Your task to perform on an android device: delete a single message in the gmail app Image 0: 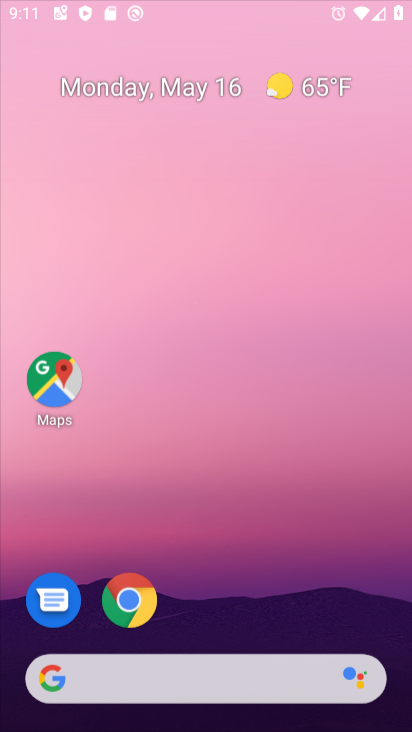
Step 0: click (296, 166)
Your task to perform on an android device: delete a single message in the gmail app Image 1: 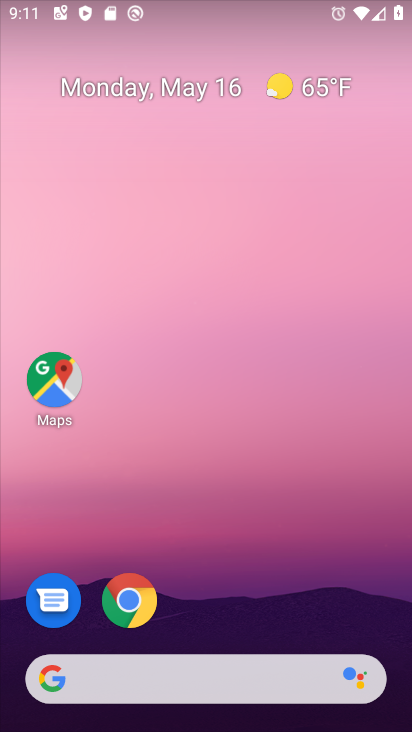
Step 1: drag from (201, 617) to (231, 49)
Your task to perform on an android device: delete a single message in the gmail app Image 2: 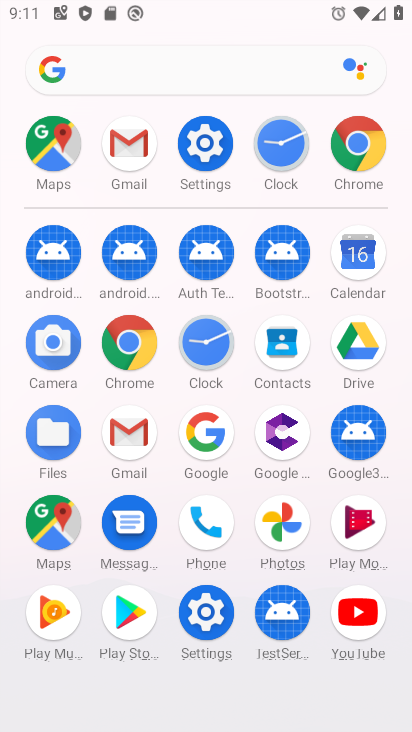
Step 2: click (126, 434)
Your task to perform on an android device: delete a single message in the gmail app Image 3: 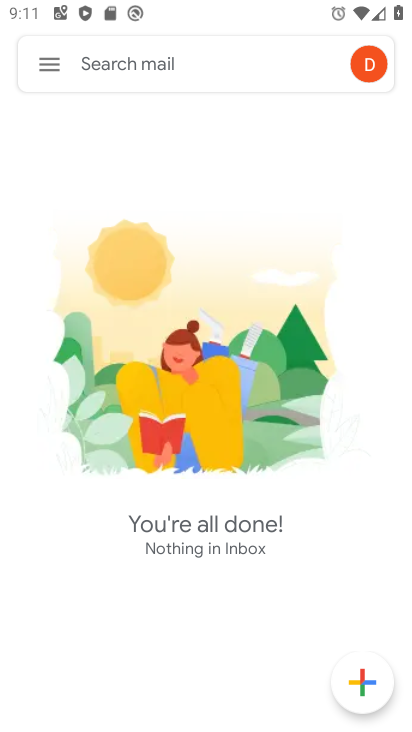
Step 3: press home button
Your task to perform on an android device: delete a single message in the gmail app Image 4: 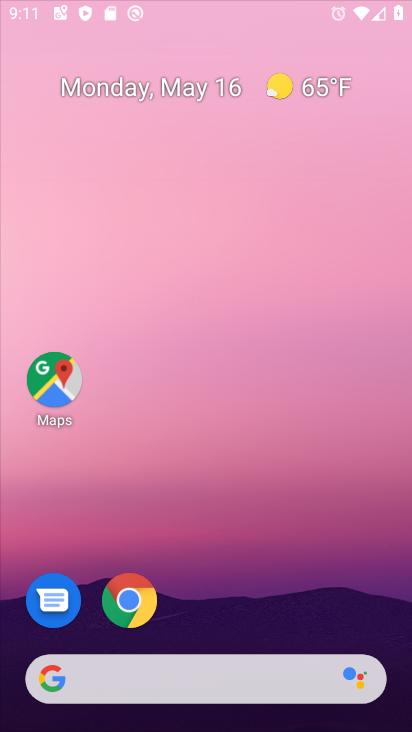
Step 4: drag from (218, 627) to (226, 25)
Your task to perform on an android device: delete a single message in the gmail app Image 5: 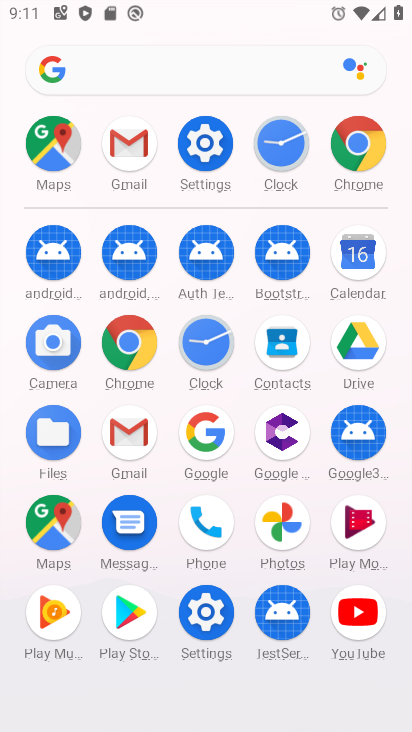
Step 5: click (129, 421)
Your task to perform on an android device: delete a single message in the gmail app Image 6: 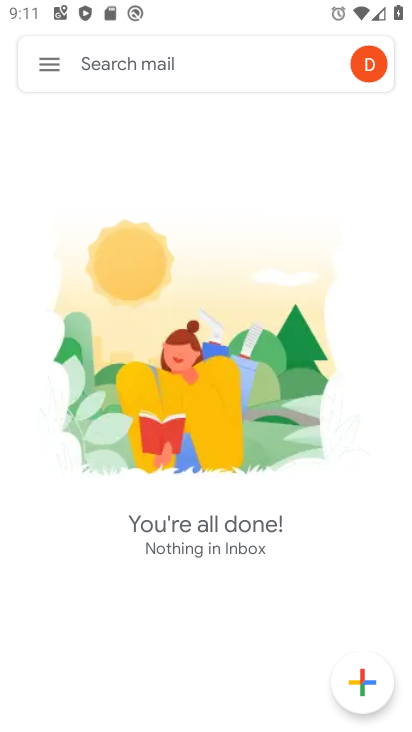
Step 6: click (59, 67)
Your task to perform on an android device: delete a single message in the gmail app Image 7: 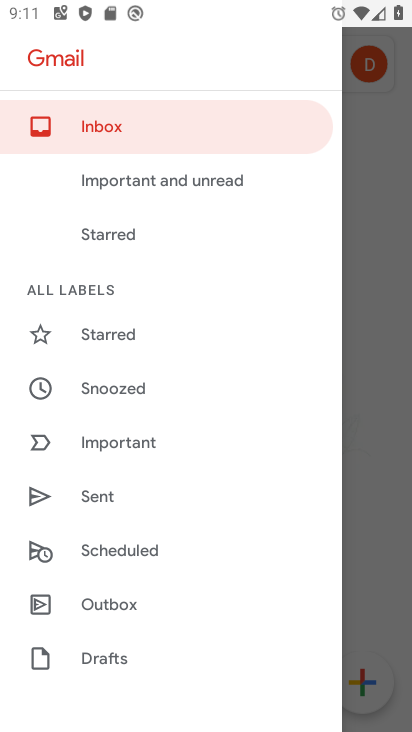
Step 7: drag from (119, 674) to (273, 54)
Your task to perform on an android device: delete a single message in the gmail app Image 8: 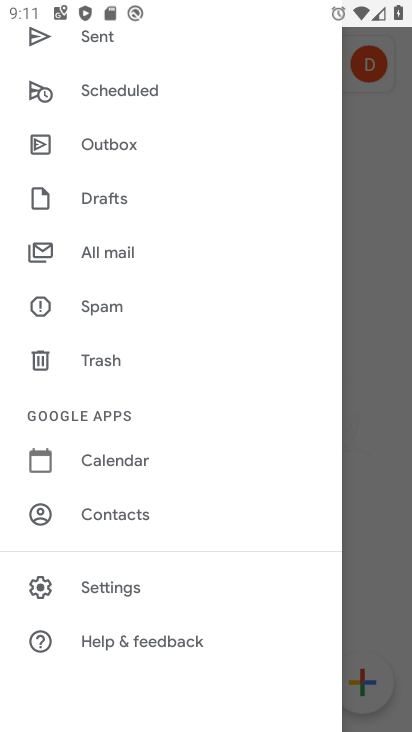
Step 8: click (353, 353)
Your task to perform on an android device: delete a single message in the gmail app Image 9: 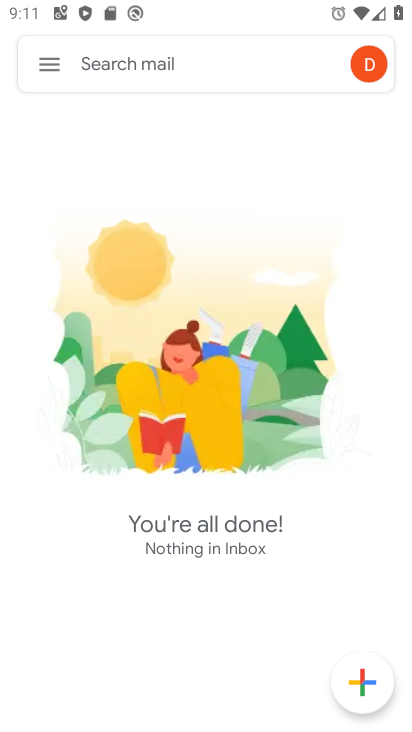
Step 9: task complete